Your task to perform on an android device: Open Amazon Image 0: 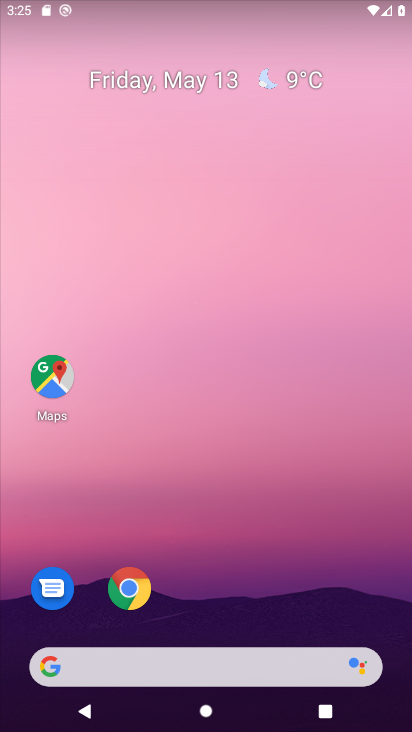
Step 0: click (136, 584)
Your task to perform on an android device: Open Amazon Image 1: 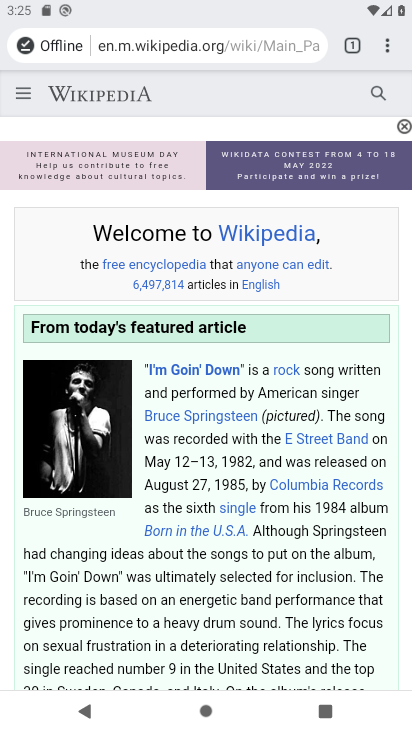
Step 1: click (350, 45)
Your task to perform on an android device: Open Amazon Image 2: 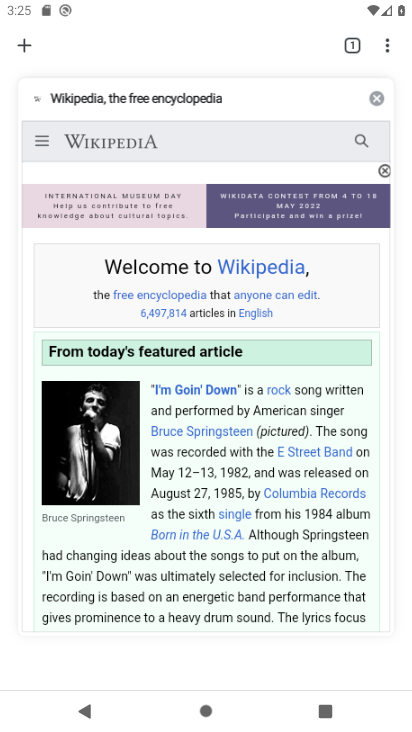
Step 2: click (380, 99)
Your task to perform on an android device: Open Amazon Image 3: 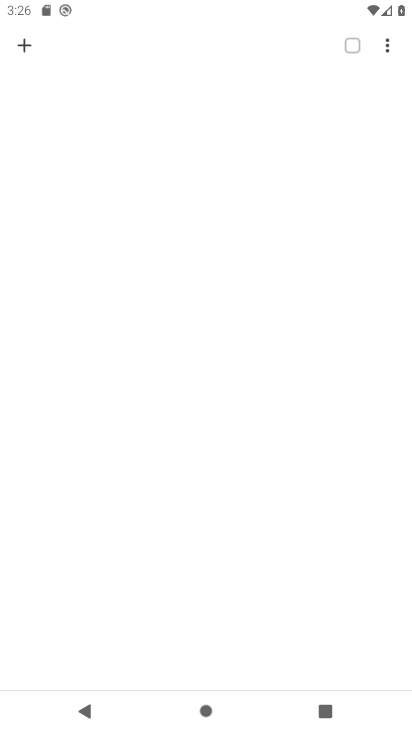
Step 3: click (24, 45)
Your task to perform on an android device: Open Amazon Image 4: 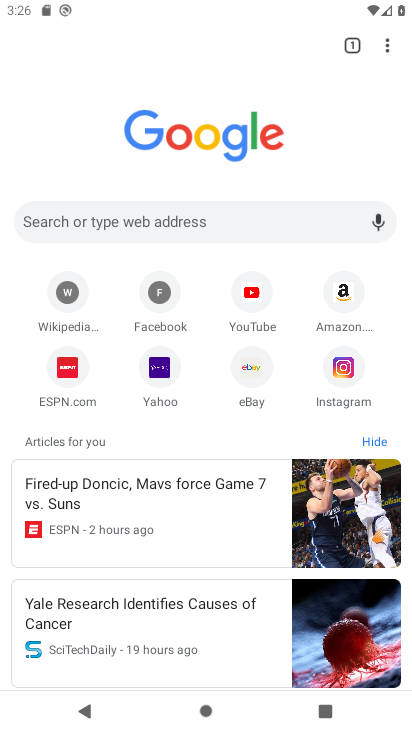
Step 4: click (334, 296)
Your task to perform on an android device: Open Amazon Image 5: 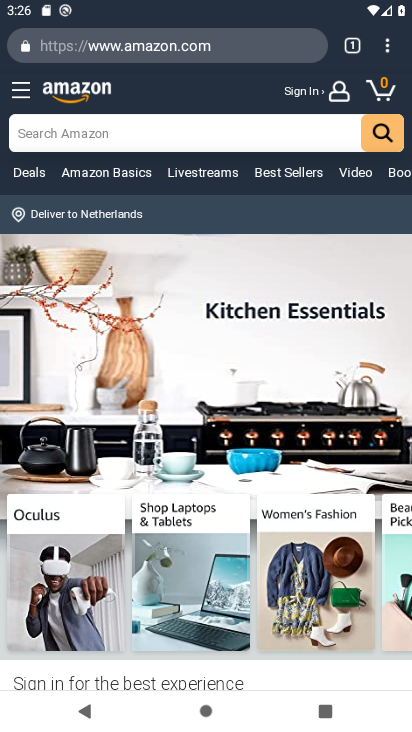
Step 5: task complete